Your task to perform on an android device: change notification settings in the gmail app Image 0: 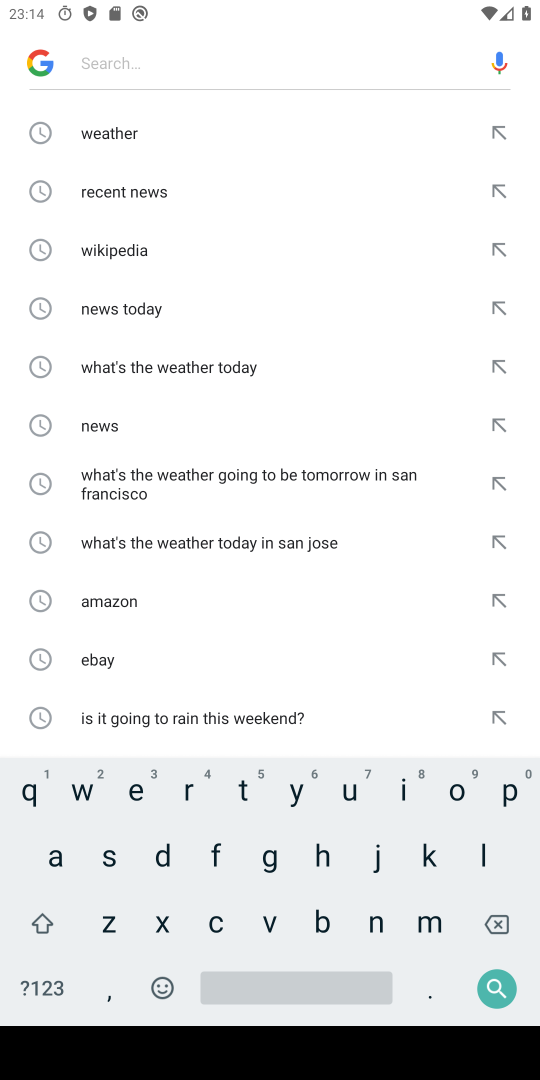
Step 0: press home button
Your task to perform on an android device: change notification settings in the gmail app Image 1: 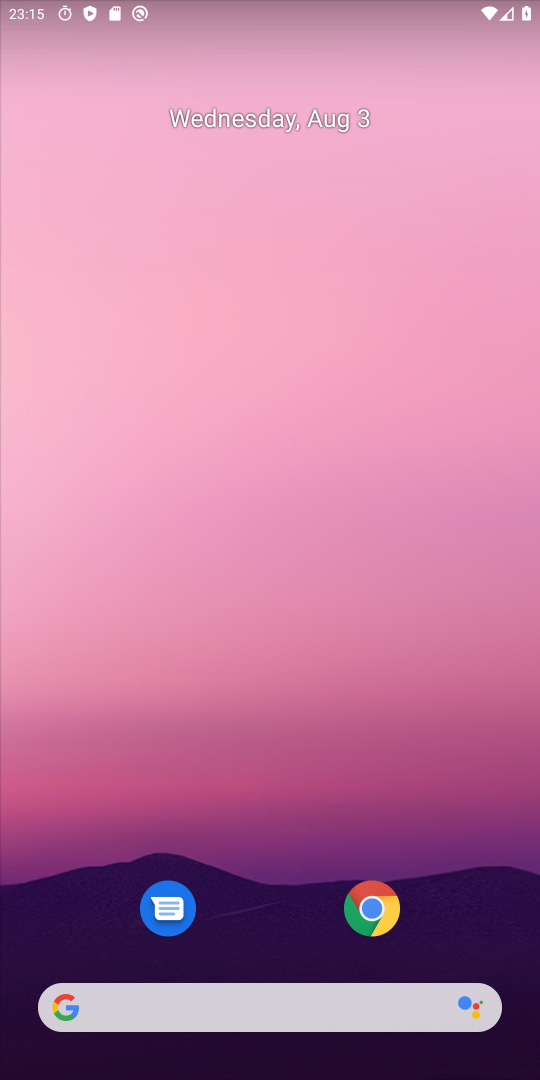
Step 1: drag from (310, 986) to (294, 268)
Your task to perform on an android device: change notification settings in the gmail app Image 2: 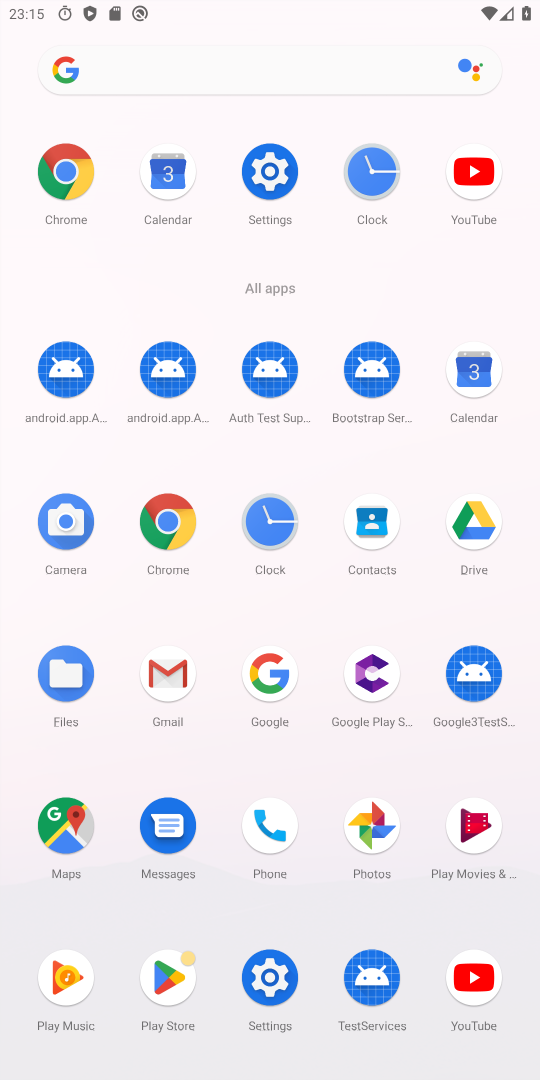
Step 2: click (159, 660)
Your task to perform on an android device: change notification settings in the gmail app Image 3: 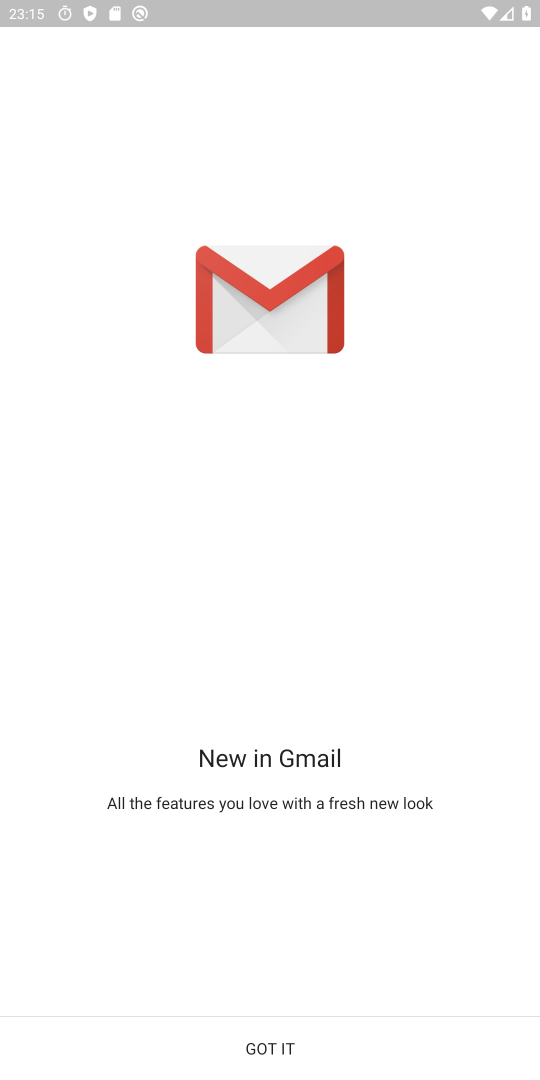
Step 3: click (281, 1044)
Your task to perform on an android device: change notification settings in the gmail app Image 4: 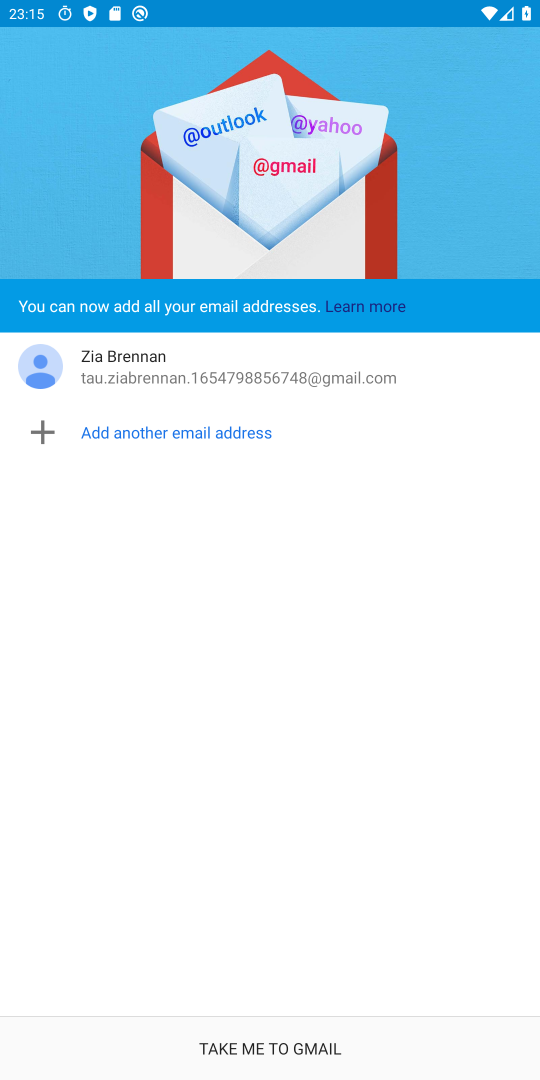
Step 4: click (291, 1036)
Your task to perform on an android device: change notification settings in the gmail app Image 5: 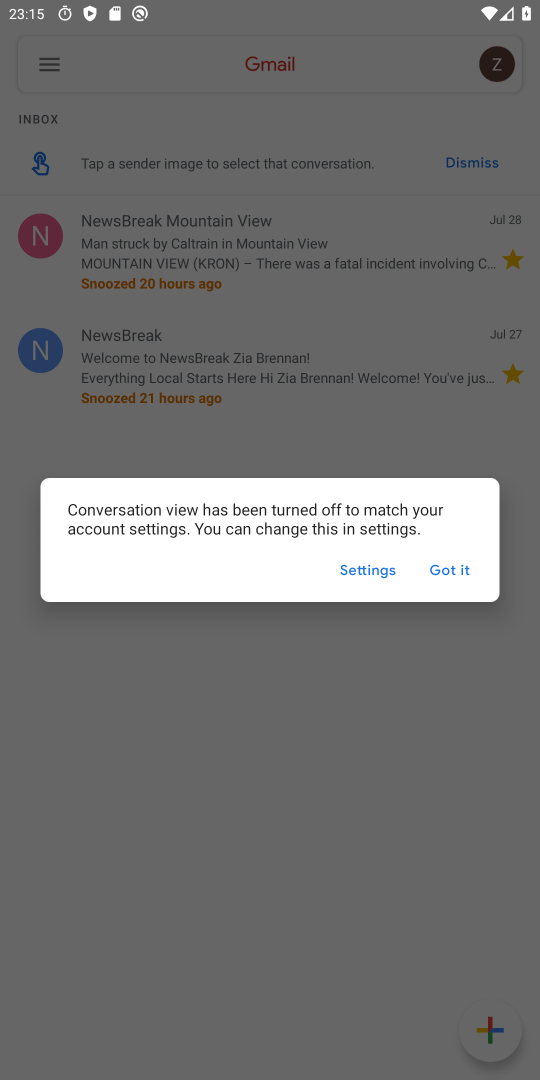
Step 5: click (449, 560)
Your task to perform on an android device: change notification settings in the gmail app Image 6: 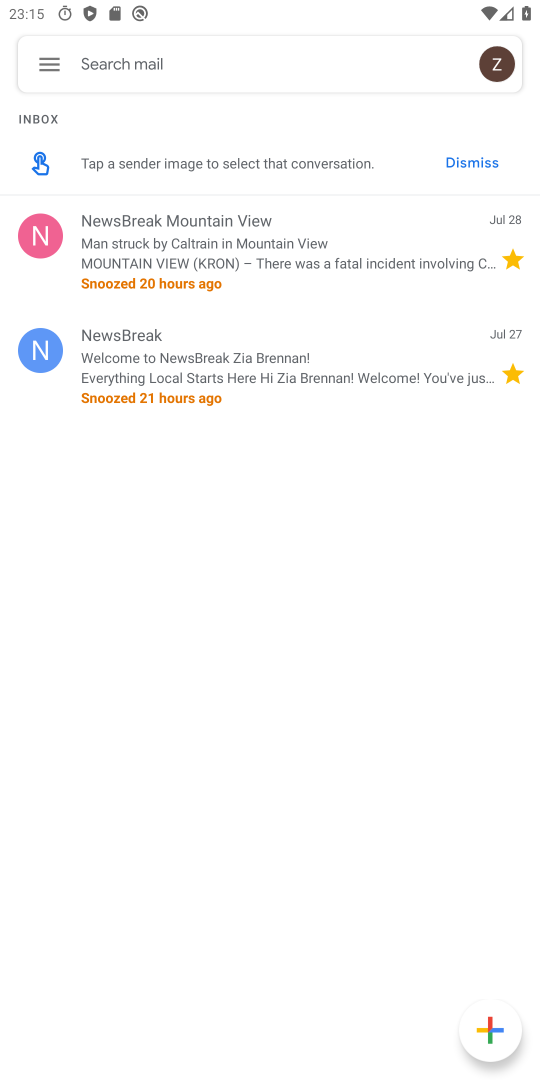
Step 6: click (25, 56)
Your task to perform on an android device: change notification settings in the gmail app Image 7: 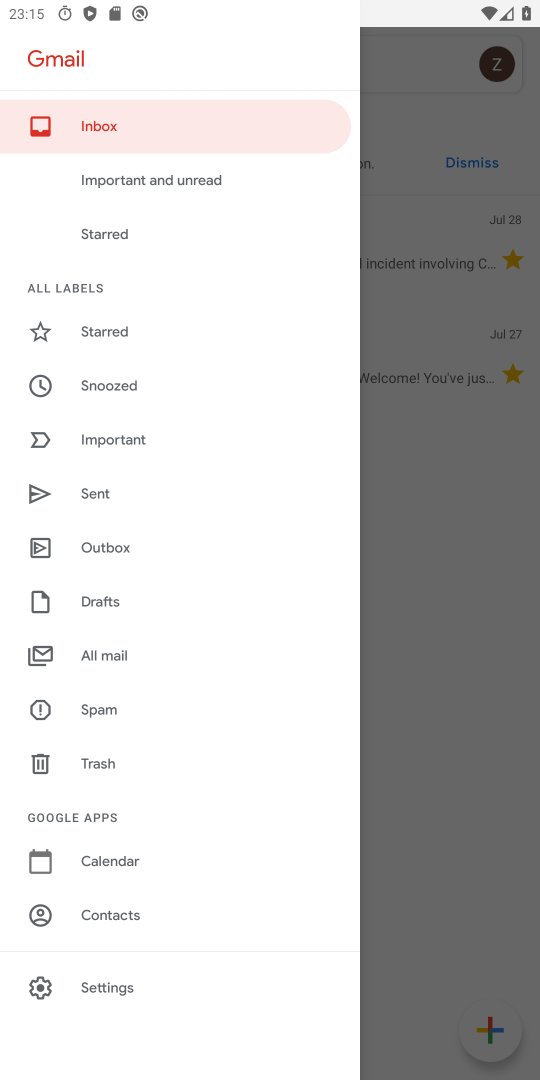
Step 7: click (93, 990)
Your task to perform on an android device: change notification settings in the gmail app Image 8: 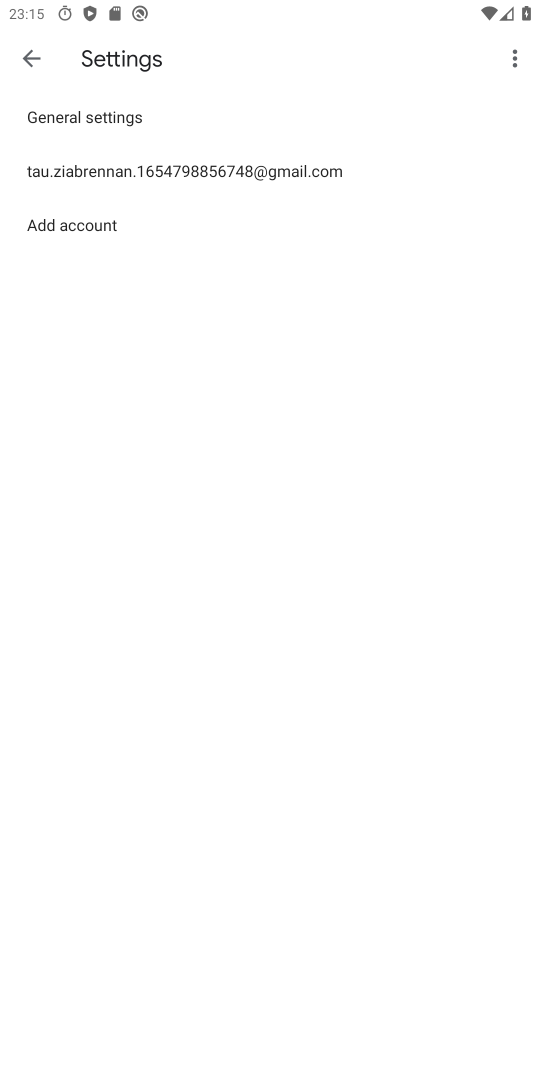
Step 8: click (164, 188)
Your task to perform on an android device: change notification settings in the gmail app Image 9: 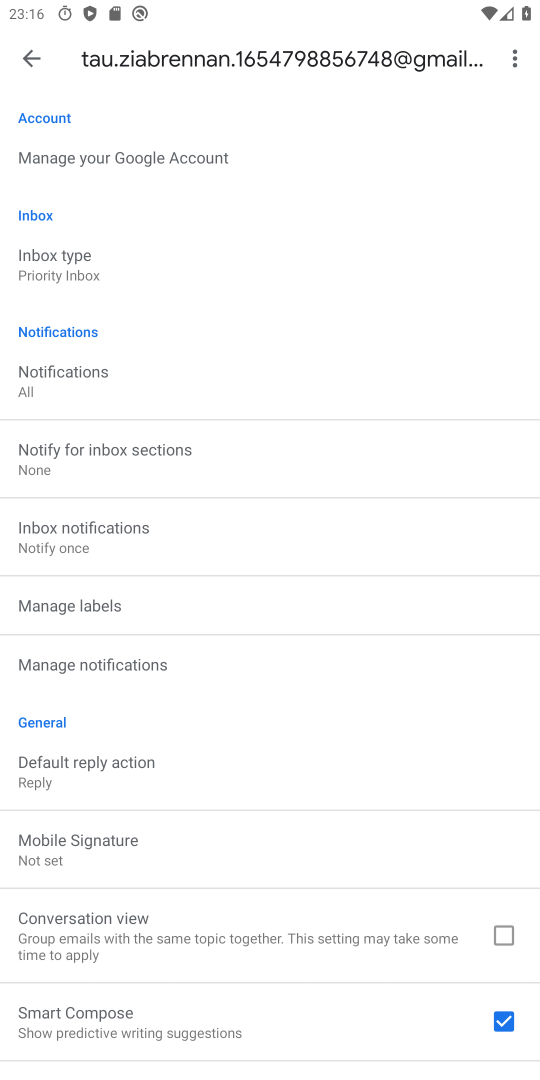
Step 9: click (120, 381)
Your task to perform on an android device: change notification settings in the gmail app Image 10: 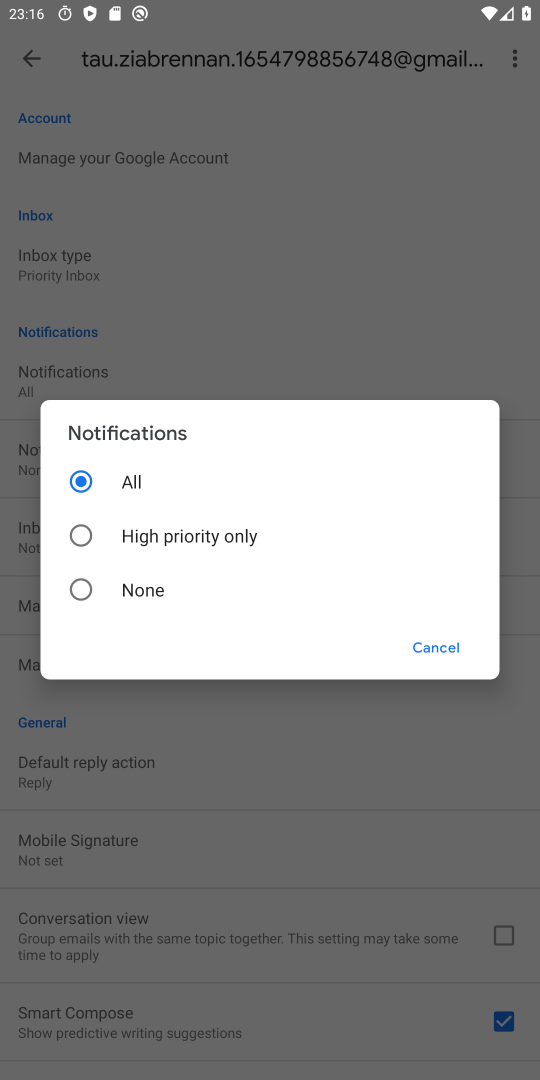
Step 10: click (165, 537)
Your task to perform on an android device: change notification settings in the gmail app Image 11: 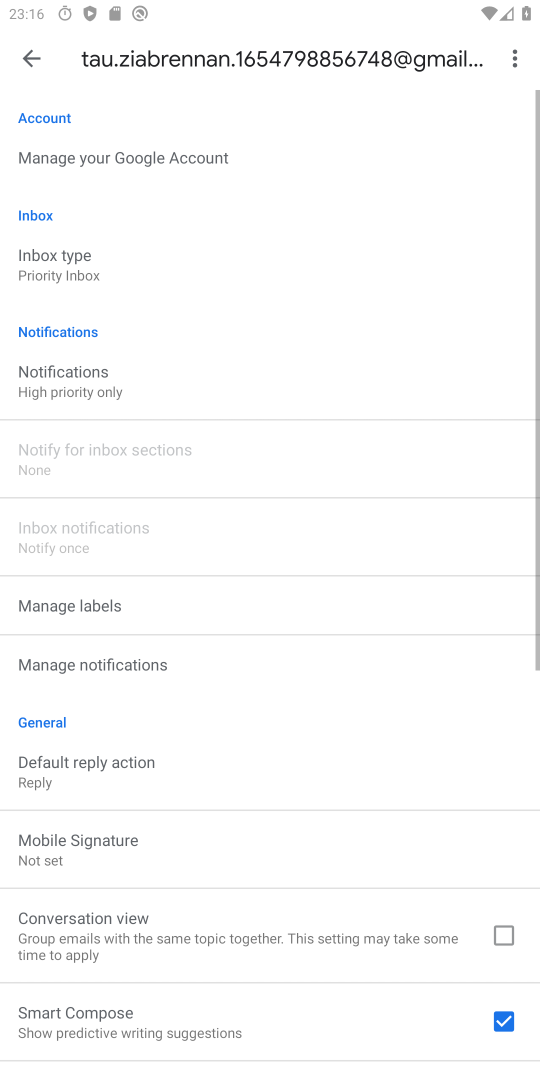
Step 11: task complete